Your task to perform on an android device: What is the recent news? Image 0: 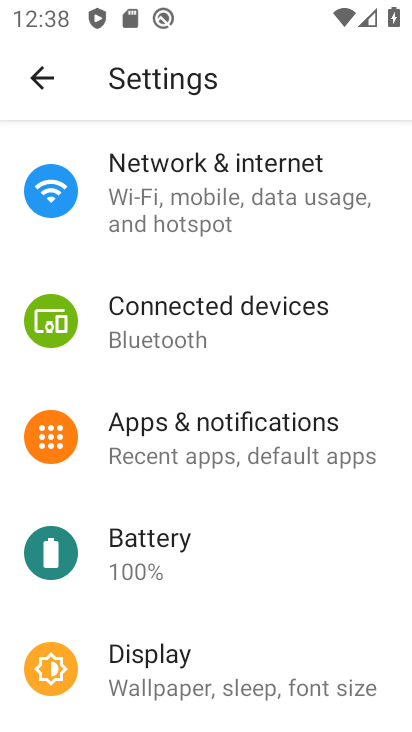
Step 0: press home button
Your task to perform on an android device: What is the recent news? Image 1: 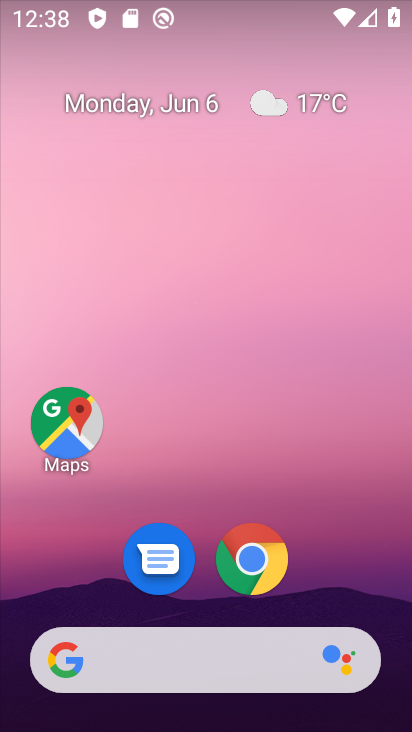
Step 1: task complete